Your task to perform on an android device: Search for vegetarian restaurants on Maps Image 0: 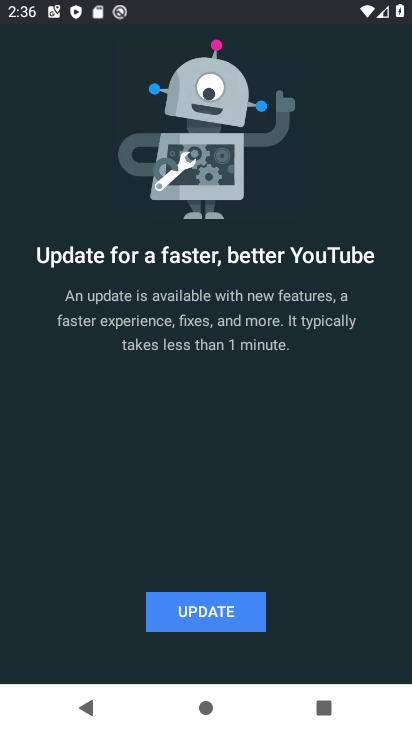
Step 0: press home button
Your task to perform on an android device: Search for vegetarian restaurants on Maps Image 1: 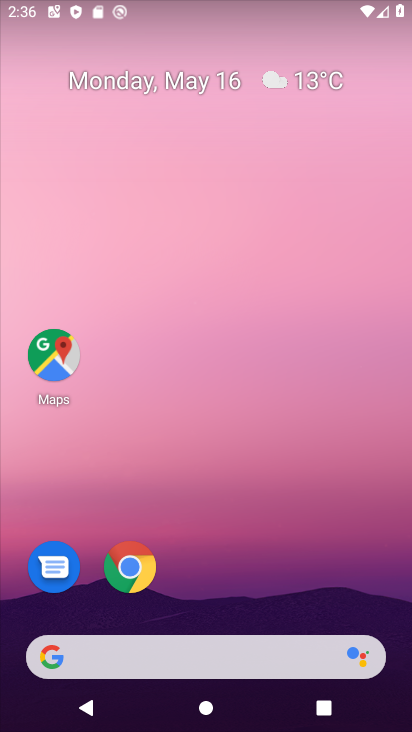
Step 1: drag from (252, 597) to (285, 122)
Your task to perform on an android device: Search for vegetarian restaurants on Maps Image 2: 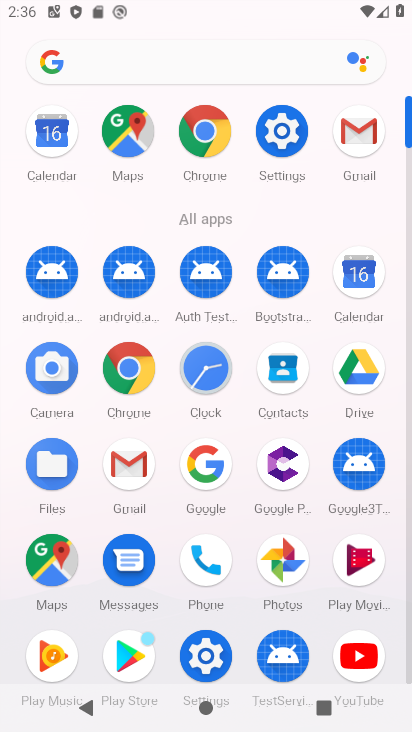
Step 2: click (129, 160)
Your task to perform on an android device: Search for vegetarian restaurants on Maps Image 3: 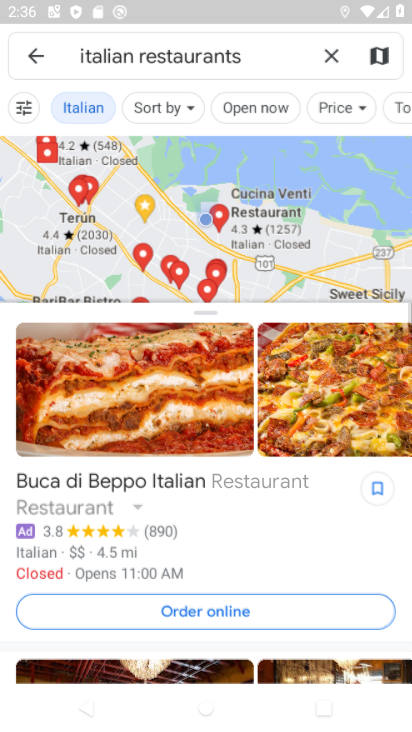
Step 3: click (294, 51)
Your task to perform on an android device: Search for vegetarian restaurants on Maps Image 4: 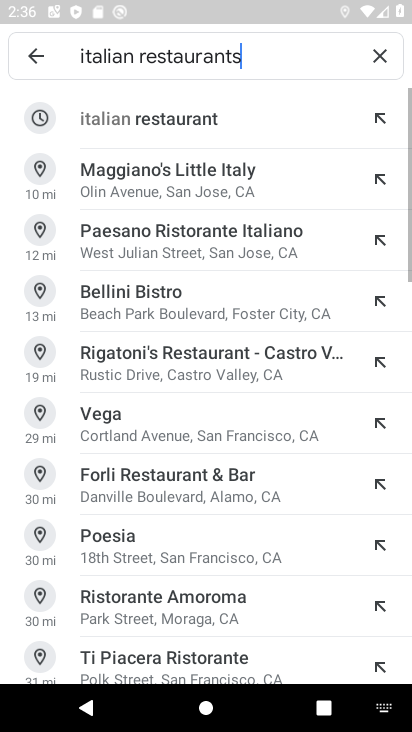
Step 4: click (379, 51)
Your task to perform on an android device: Search for vegetarian restaurants on Maps Image 5: 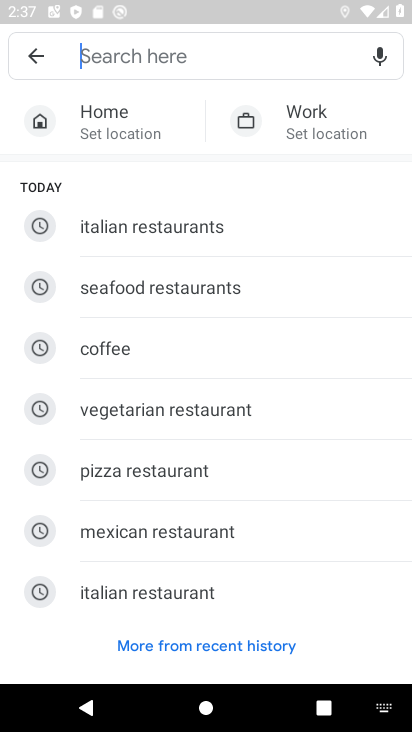
Step 5: type "vegetarian restaurants"
Your task to perform on an android device: Search for vegetarian restaurants on Maps Image 6: 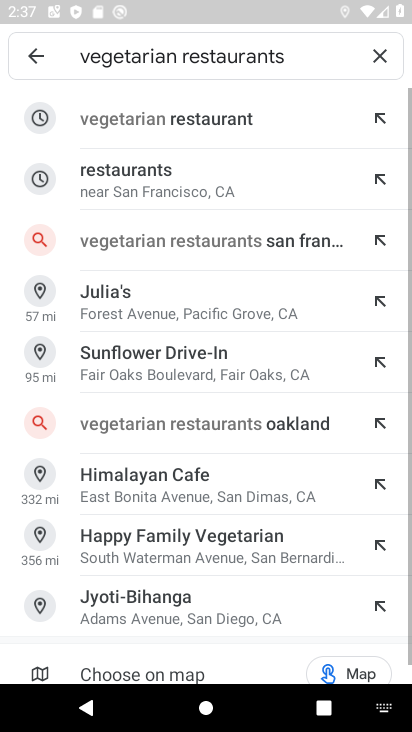
Step 6: click (196, 121)
Your task to perform on an android device: Search for vegetarian restaurants on Maps Image 7: 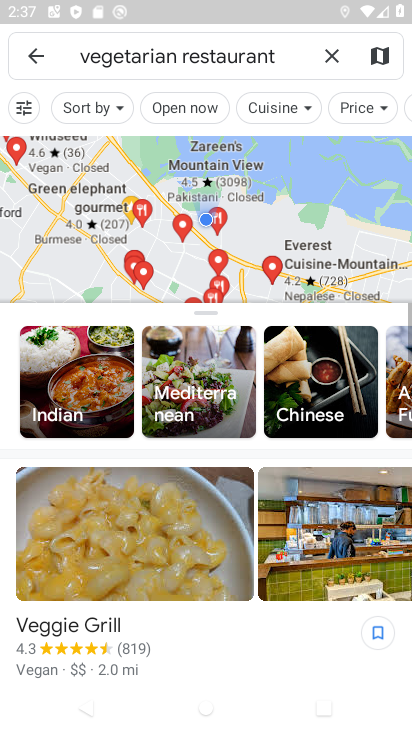
Step 7: task complete